Your task to perform on an android device: View the shopping cart on amazon. Add "apple airpods pro" to the cart on amazon, then select checkout. Image 0: 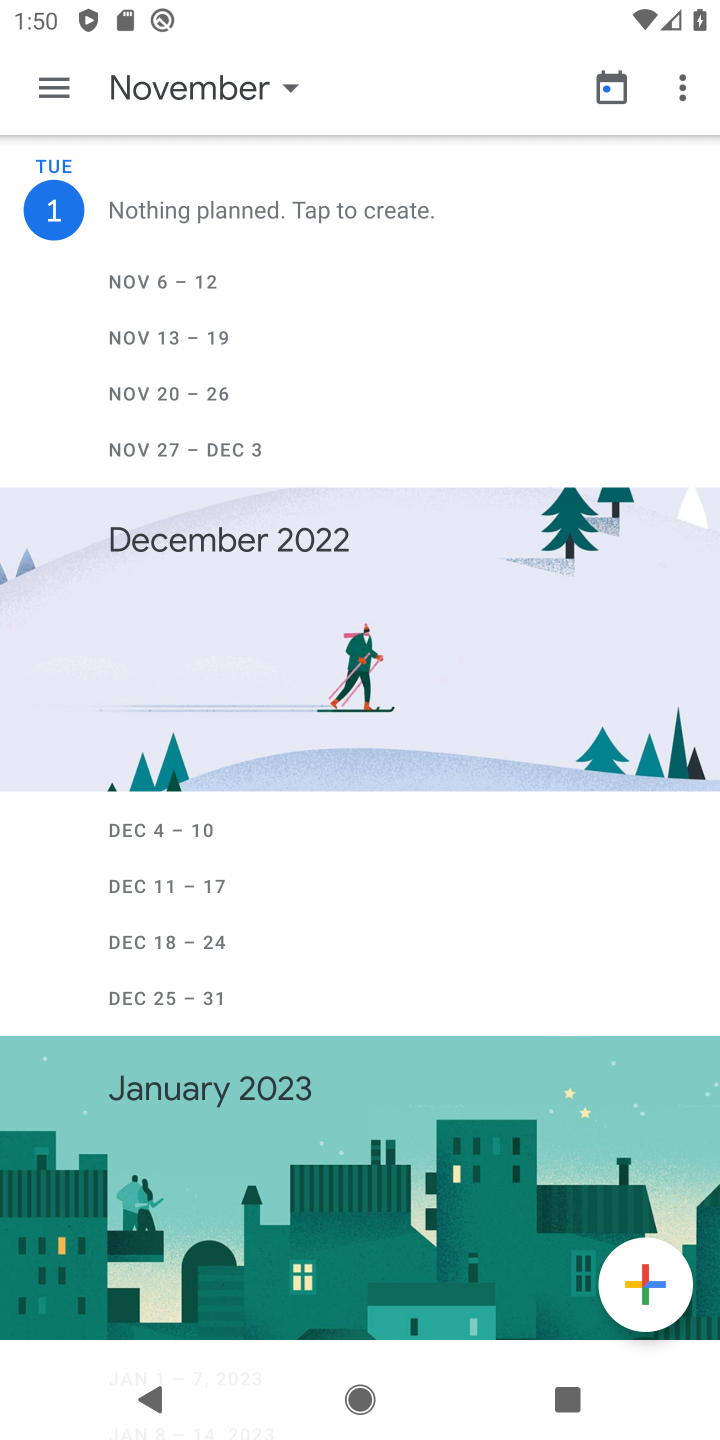
Step 0: press home button
Your task to perform on an android device: View the shopping cart on amazon. Add "apple airpods pro" to the cart on amazon, then select checkout. Image 1: 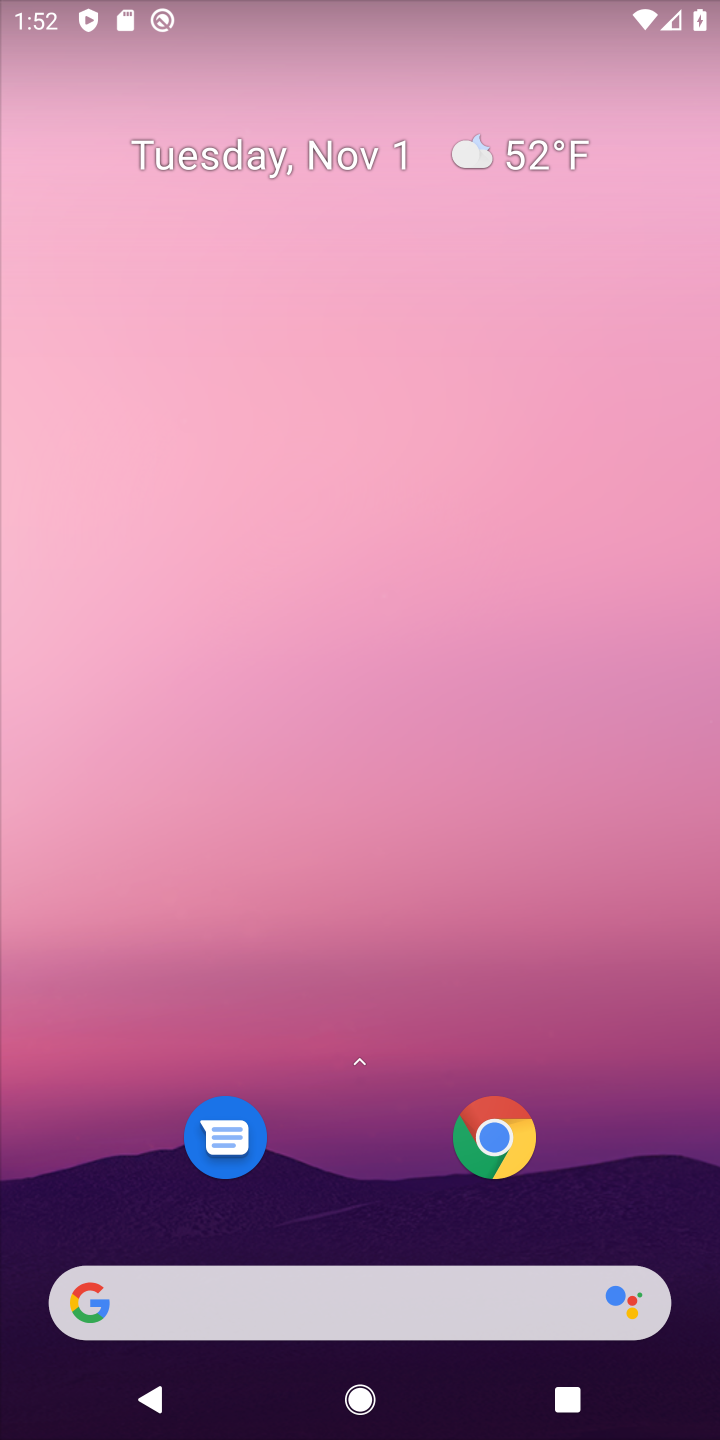
Step 1: click (348, 1320)
Your task to perform on an android device: View the shopping cart on amazon. Add "apple airpods pro" to the cart on amazon, then select checkout. Image 2: 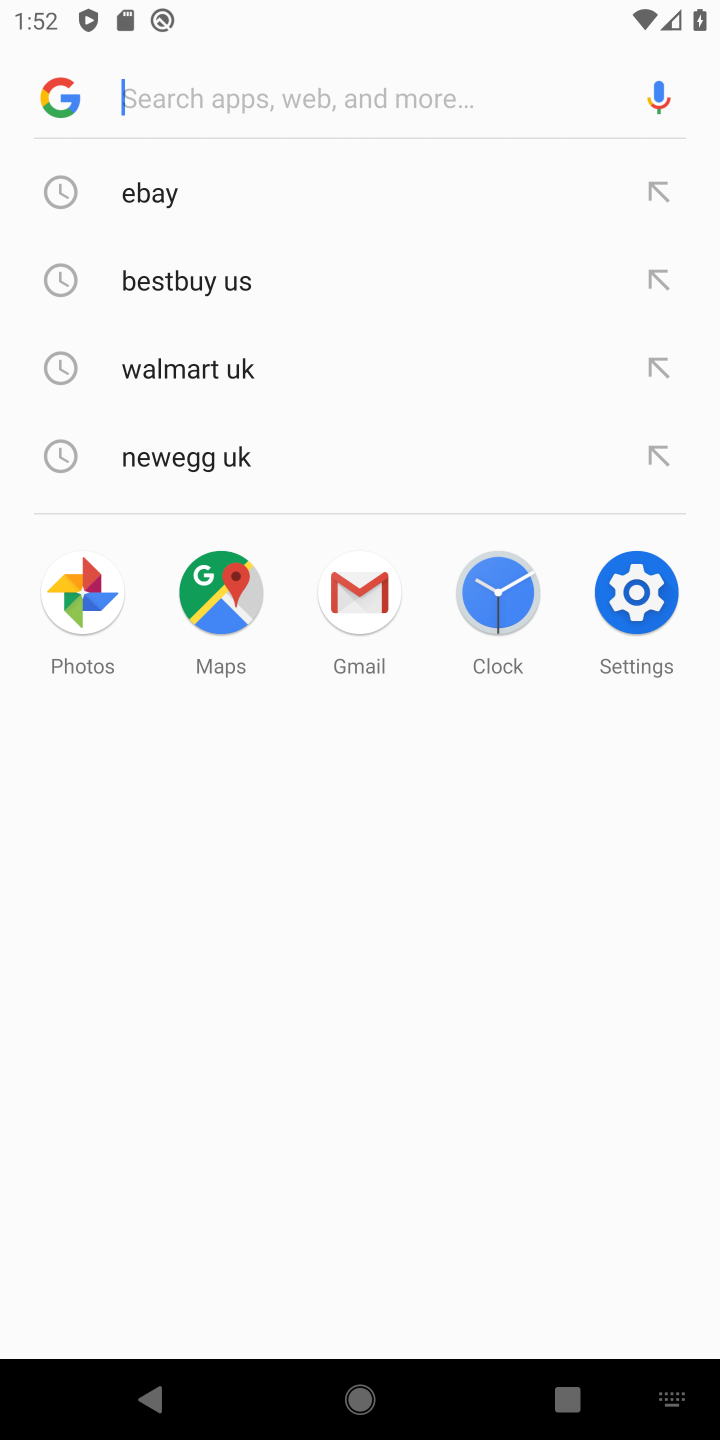
Step 2: type "amamazon"
Your task to perform on an android device: View the shopping cart on amazon. Add "apple airpods pro" to the cart on amazon, then select checkout. Image 3: 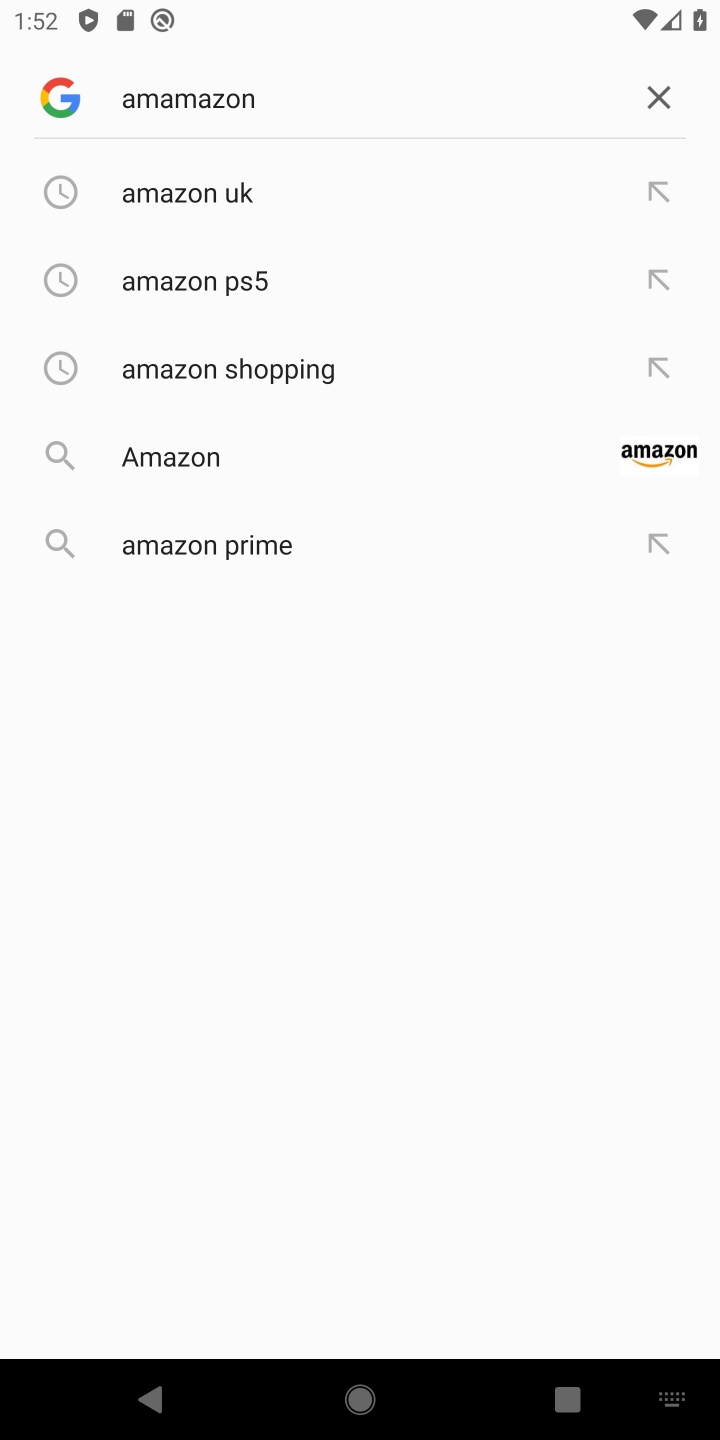
Step 3: click (356, 189)
Your task to perform on an android device: View the shopping cart on amazon. Add "apple airpods pro" to the cart on amazon, then select checkout. Image 4: 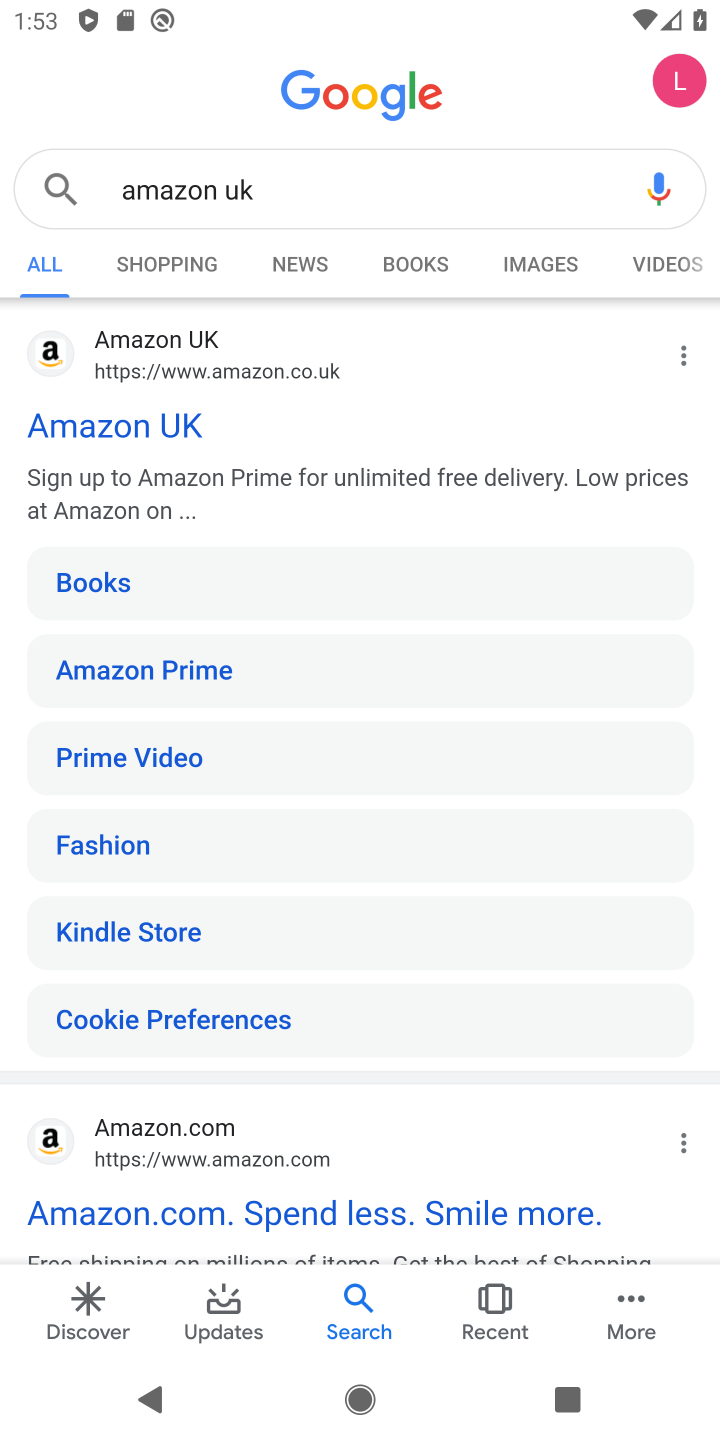
Step 4: click (356, 189)
Your task to perform on an android device: View the shopping cart on amazon. Add "apple airpods pro" to the cart on amazon, then select checkout. Image 5: 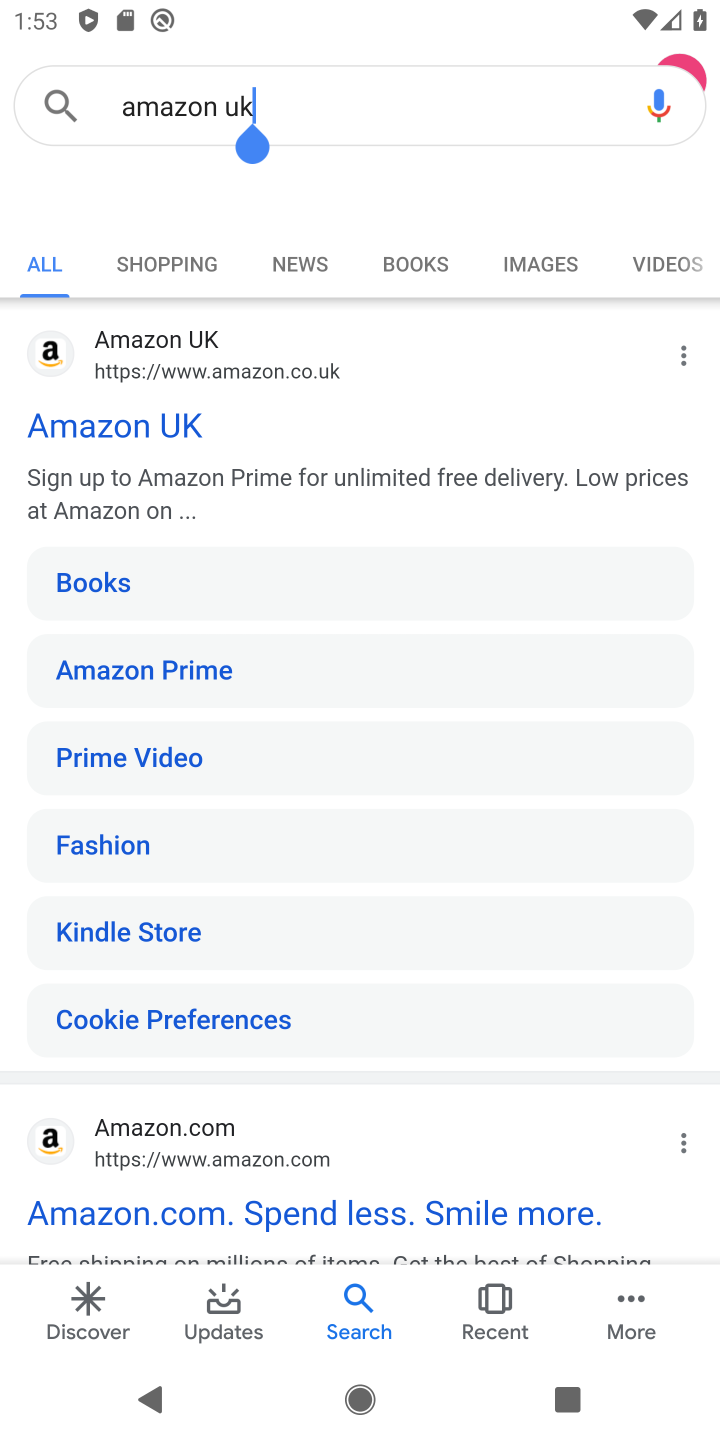
Step 5: click (92, 441)
Your task to perform on an android device: View the shopping cart on amazon. Add "apple airpods pro" to the cart on amazon, then select checkout. Image 6: 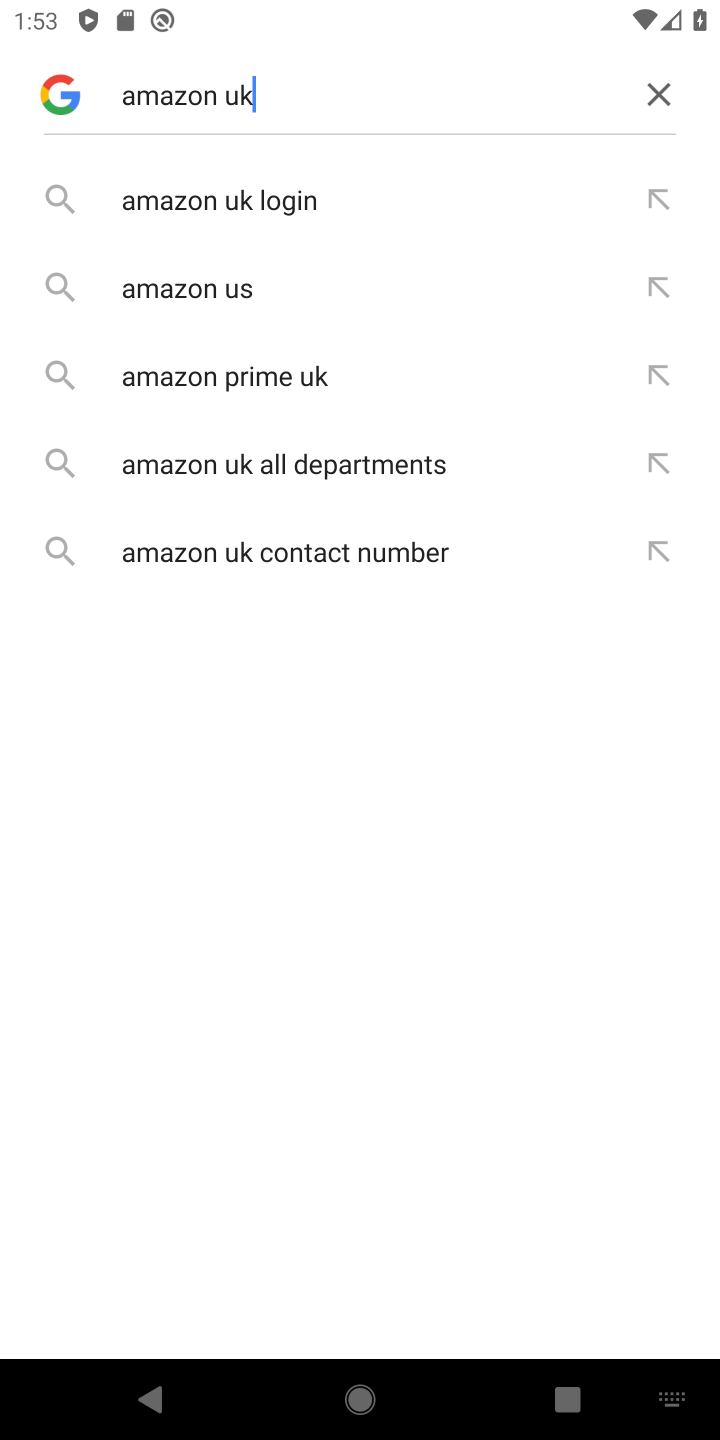
Step 6: click (285, 192)
Your task to perform on an android device: View the shopping cart on amazon. Add "apple airpods pro" to the cart on amazon, then select checkout. Image 7: 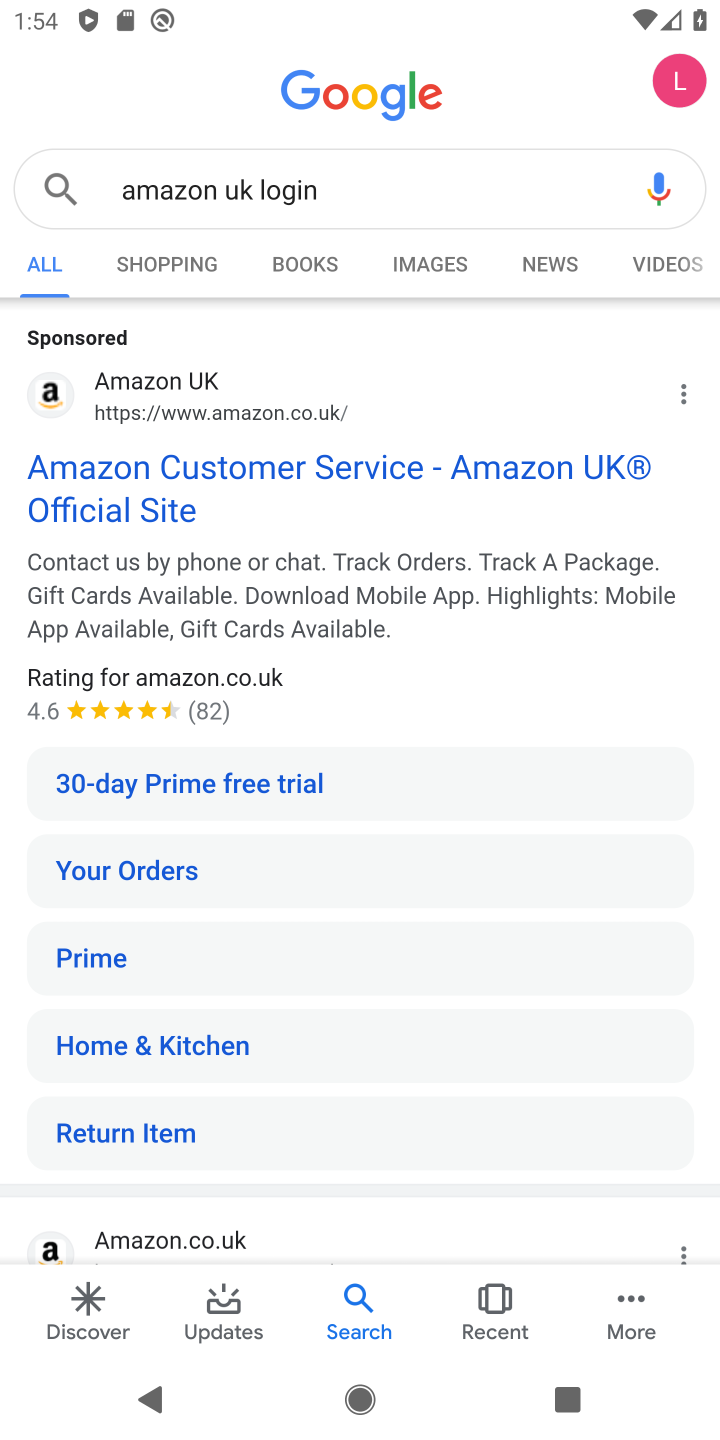
Step 7: click (84, 489)
Your task to perform on an android device: View the shopping cart on amazon. Add "apple airpods pro" to the cart on amazon, then select checkout. Image 8: 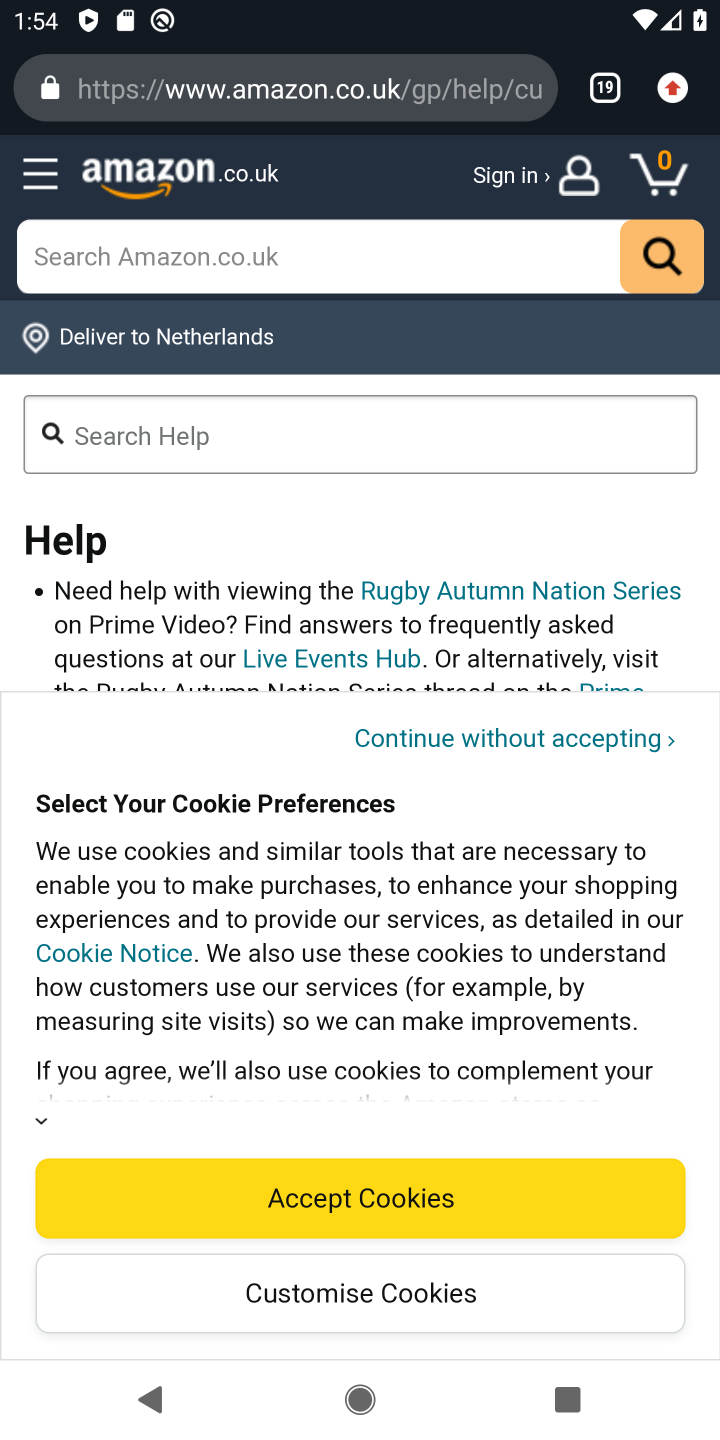
Step 8: click (360, 1200)
Your task to perform on an android device: View the shopping cart on amazon. Add "apple airpods pro" to the cart on amazon, then select checkout. Image 9: 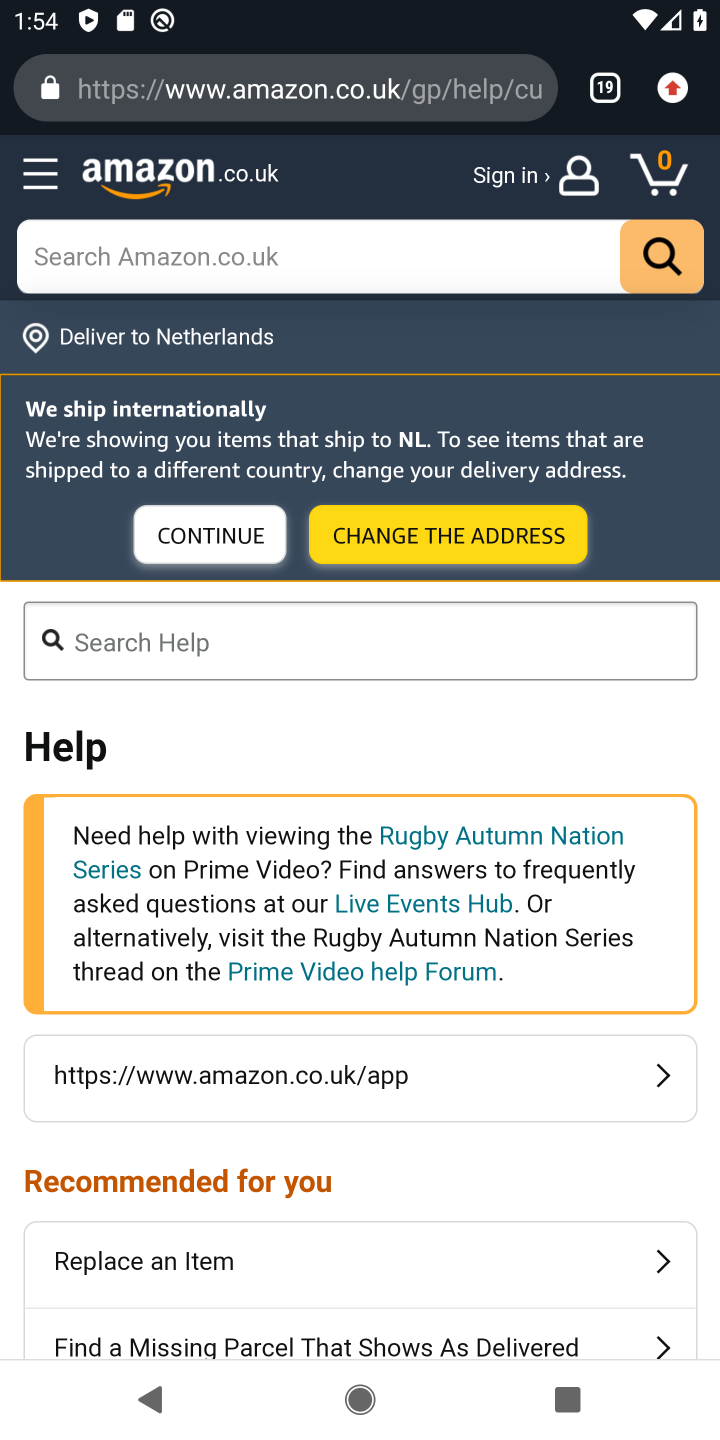
Step 9: click (253, 243)
Your task to perform on an android device: View the shopping cart on amazon. Add "apple airpods pro" to the cart on amazon, then select checkout. Image 10: 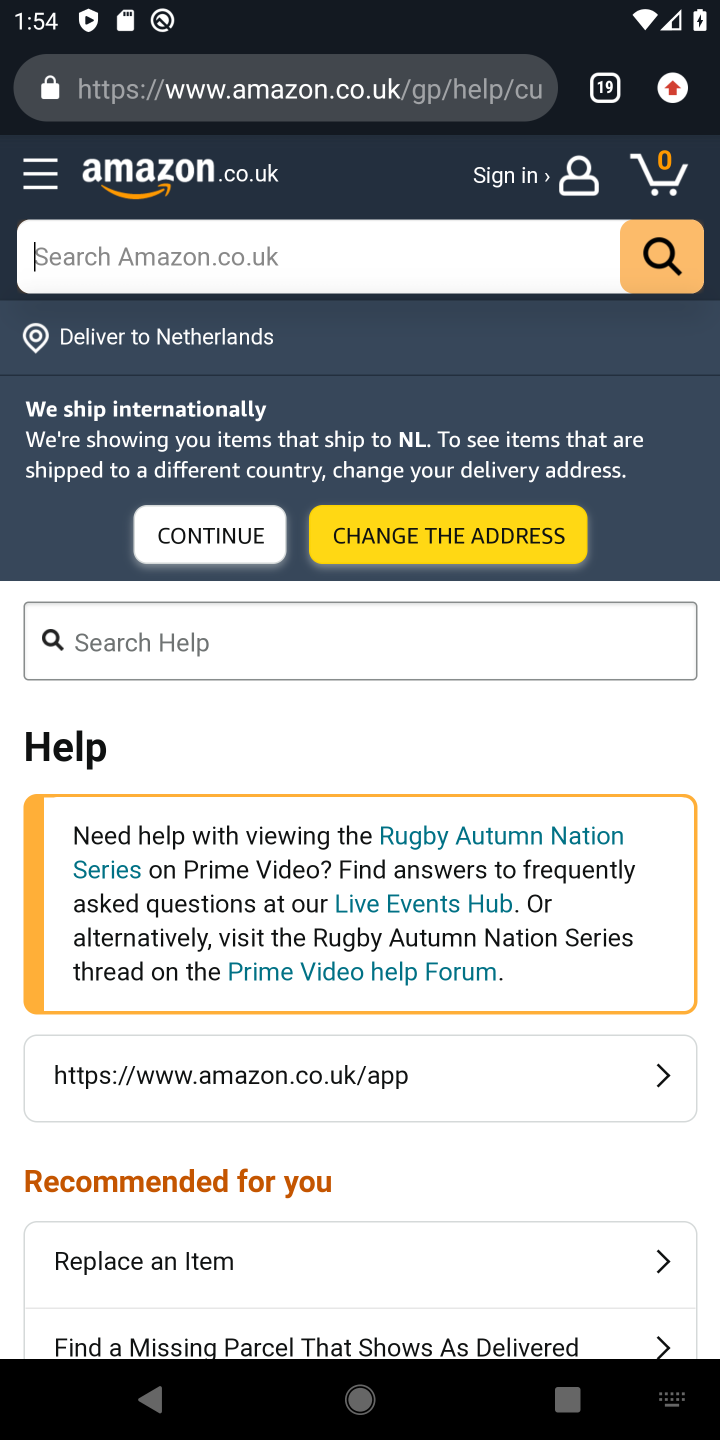
Step 10: type "airpods"
Your task to perform on an android device: View the shopping cart on amazon. Add "apple airpods pro" to the cart on amazon, then select checkout. Image 11: 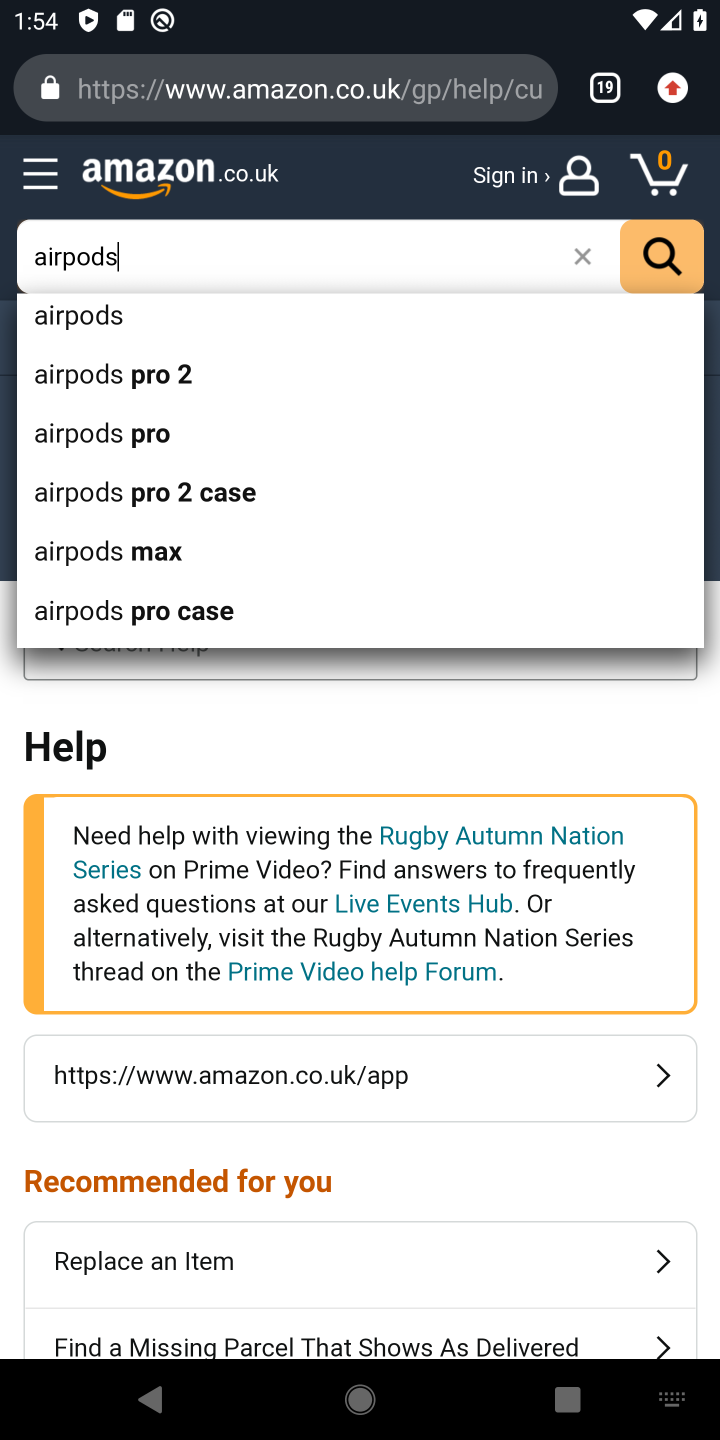
Step 11: click (111, 328)
Your task to perform on an android device: View the shopping cart on amazon. Add "apple airpods pro" to the cart on amazon, then select checkout. Image 12: 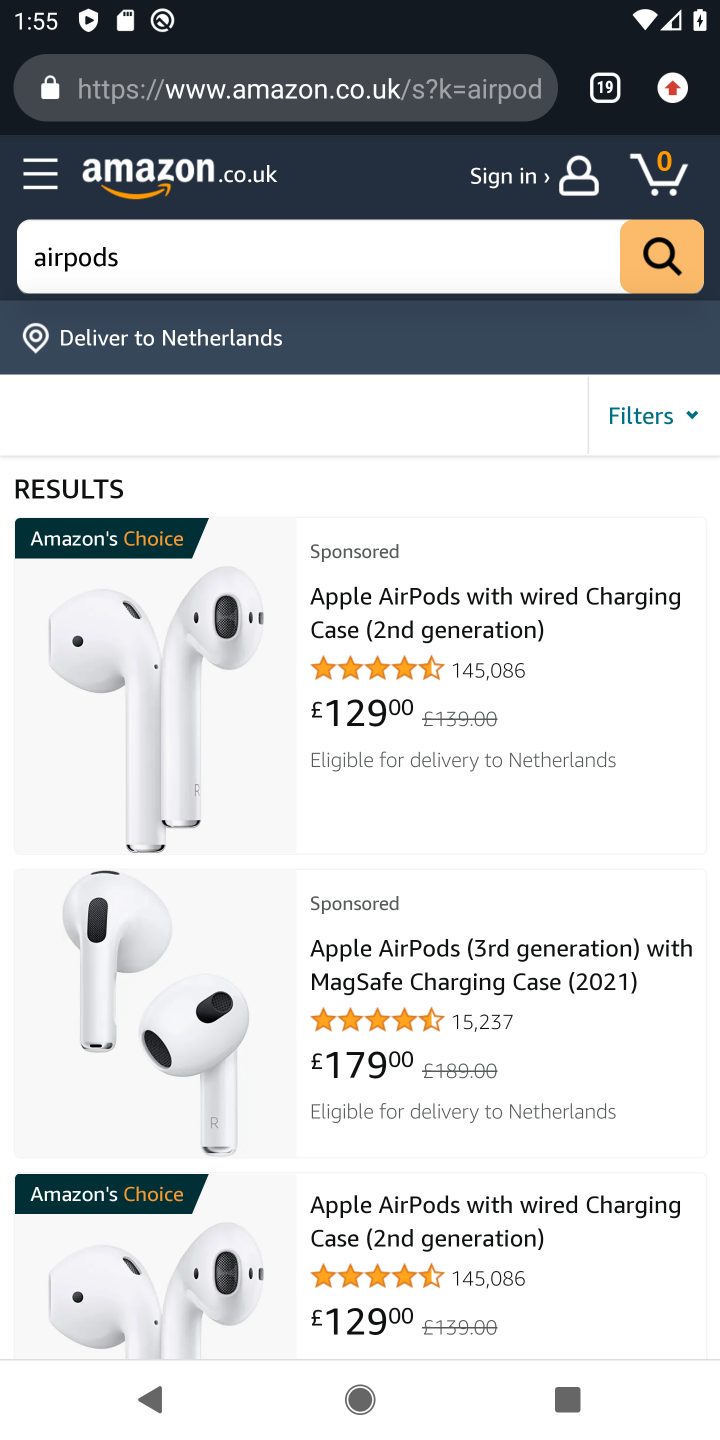
Step 12: click (299, 671)
Your task to perform on an android device: View the shopping cart on amazon. Add "apple airpods pro" to the cart on amazon, then select checkout. Image 13: 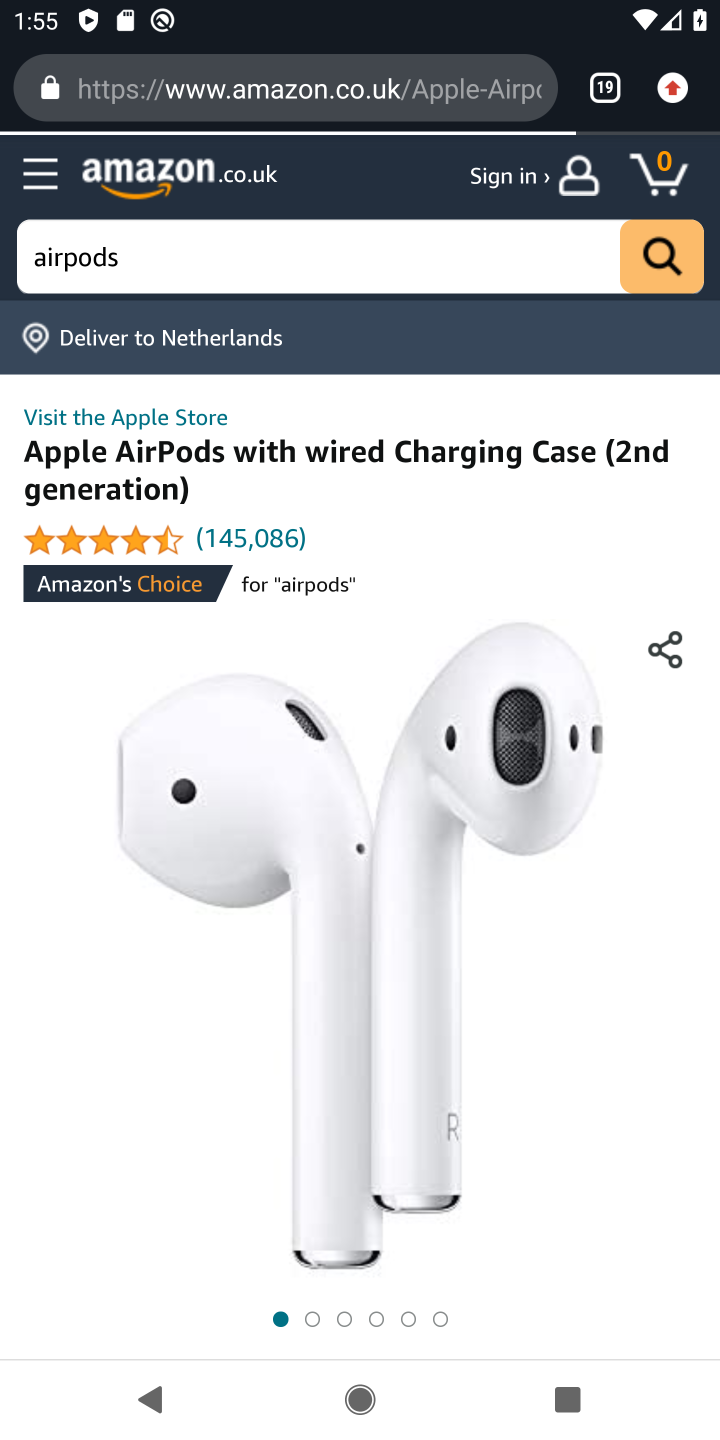
Step 13: task complete